Your task to perform on an android device: change the clock display to digital Image 0: 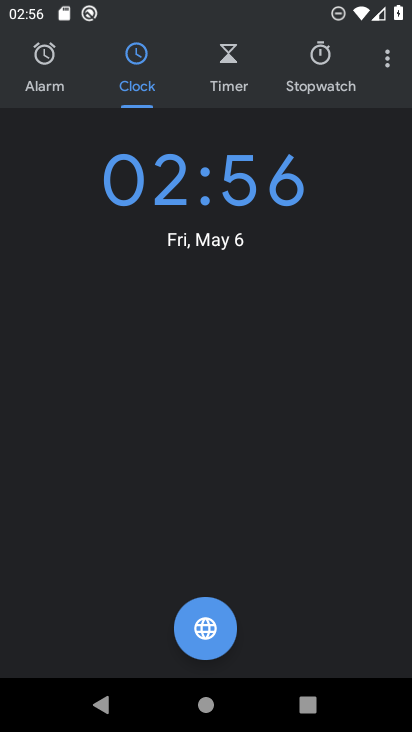
Step 0: click (394, 51)
Your task to perform on an android device: change the clock display to digital Image 1: 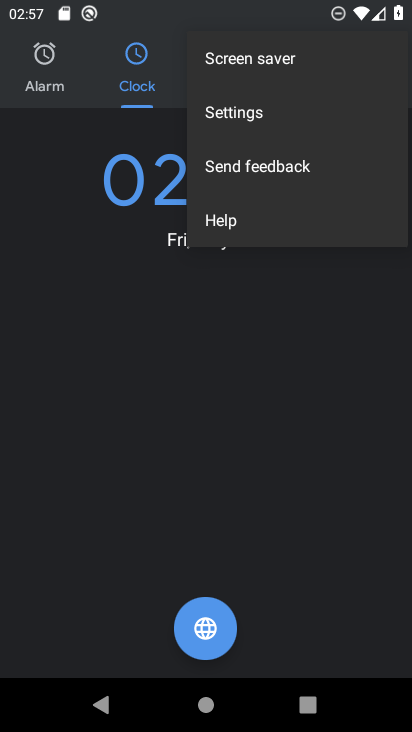
Step 1: click (246, 118)
Your task to perform on an android device: change the clock display to digital Image 2: 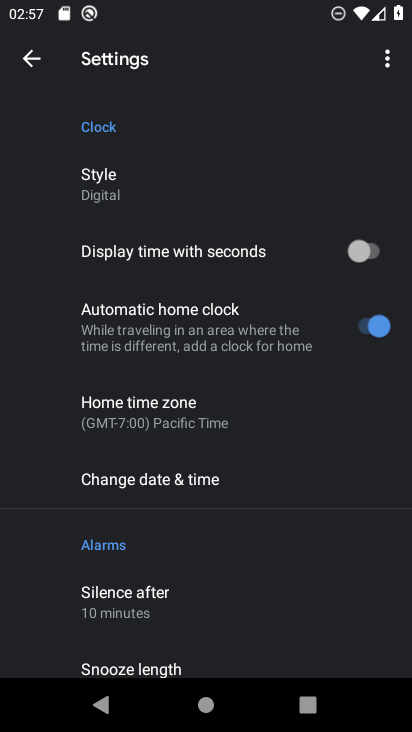
Step 2: click (102, 189)
Your task to perform on an android device: change the clock display to digital Image 3: 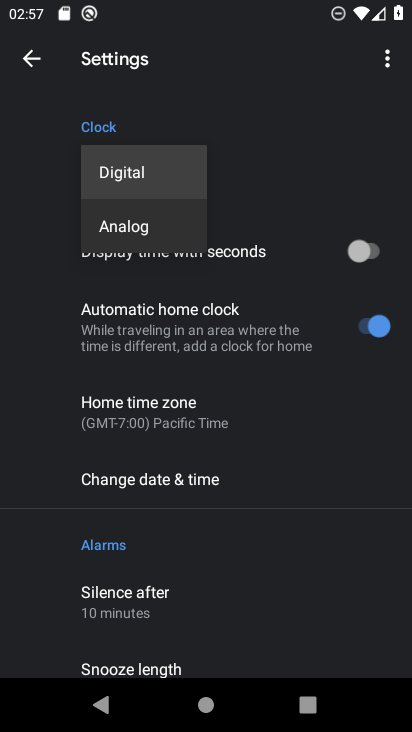
Step 3: click (143, 179)
Your task to perform on an android device: change the clock display to digital Image 4: 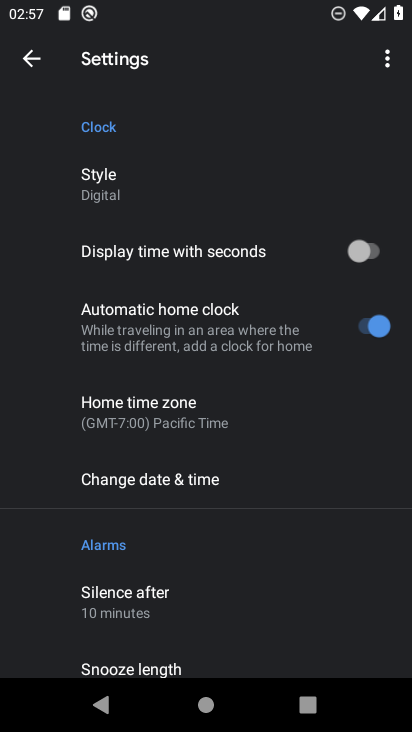
Step 4: task complete